Your task to perform on an android device: empty trash in google photos Image 0: 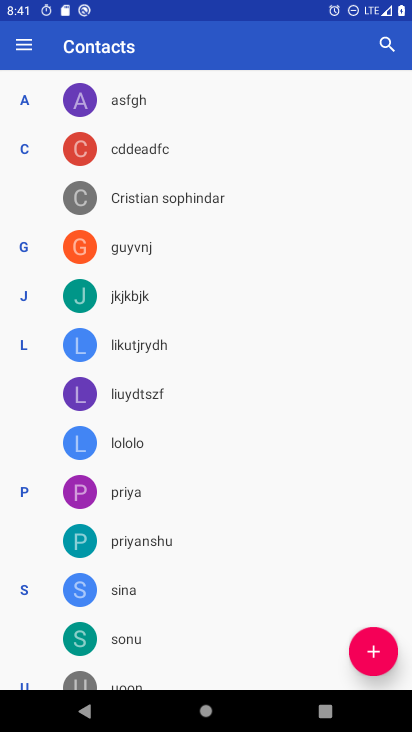
Step 0: press home button
Your task to perform on an android device: empty trash in google photos Image 1: 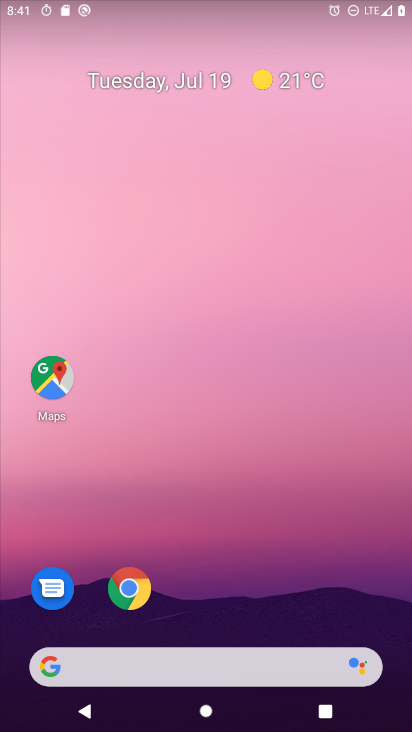
Step 1: drag from (257, 582) to (229, 188)
Your task to perform on an android device: empty trash in google photos Image 2: 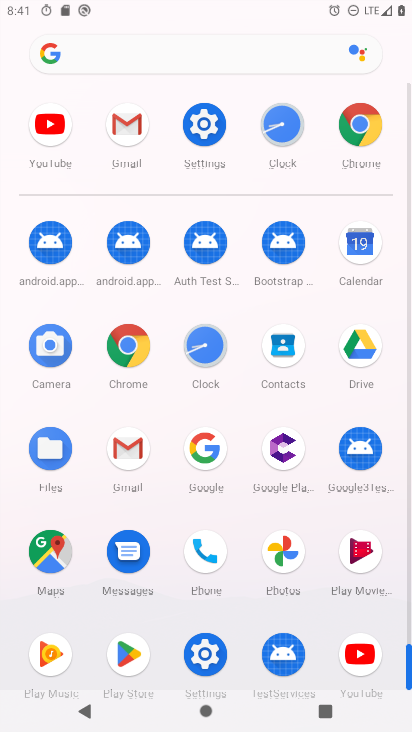
Step 2: click (281, 556)
Your task to perform on an android device: empty trash in google photos Image 3: 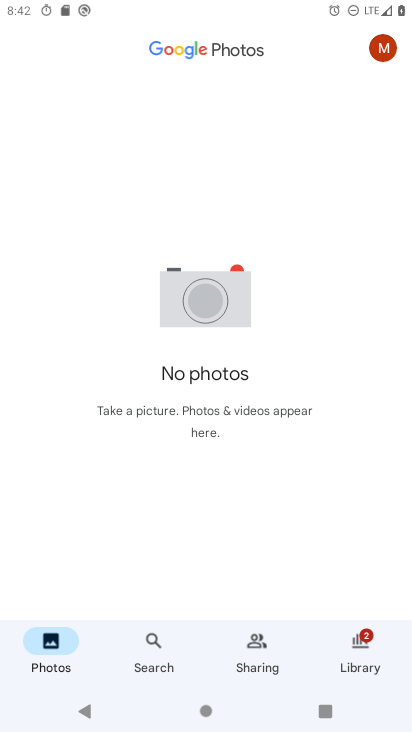
Step 3: click (377, 57)
Your task to perform on an android device: empty trash in google photos Image 4: 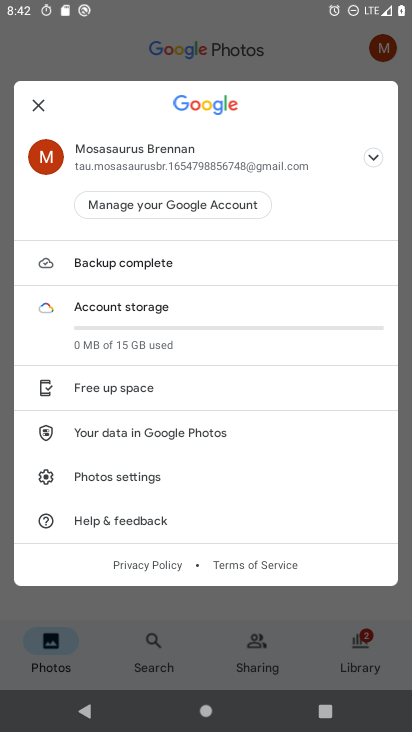
Step 4: click (139, 474)
Your task to perform on an android device: empty trash in google photos Image 5: 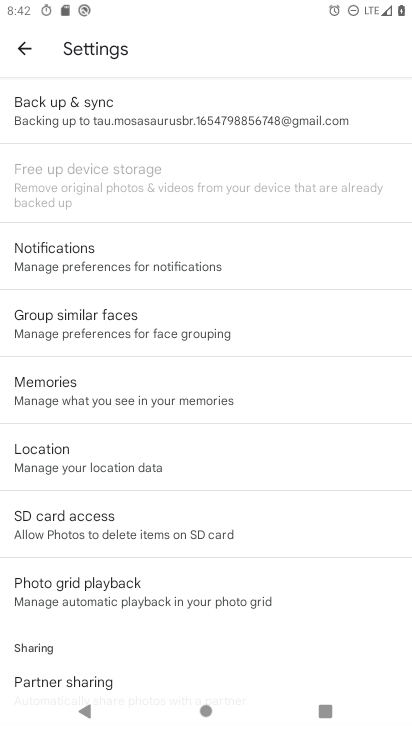
Step 5: drag from (157, 515) to (160, 175)
Your task to perform on an android device: empty trash in google photos Image 6: 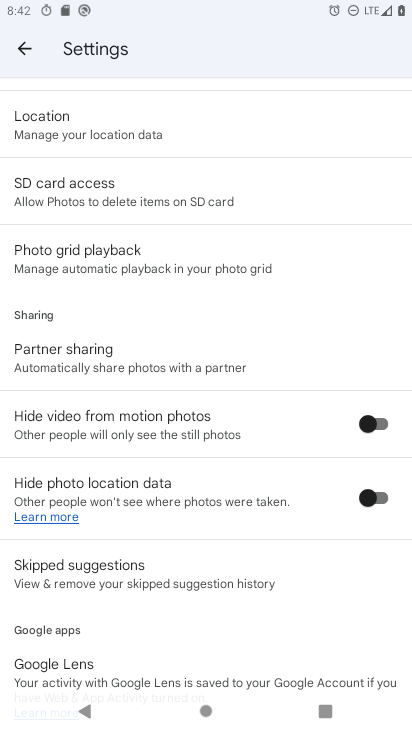
Step 6: drag from (179, 615) to (146, 279)
Your task to perform on an android device: empty trash in google photos Image 7: 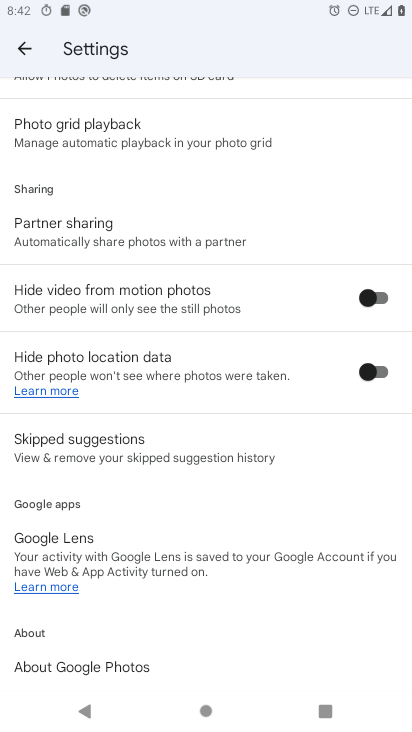
Step 7: click (82, 716)
Your task to perform on an android device: empty trash in google photos Image 8: 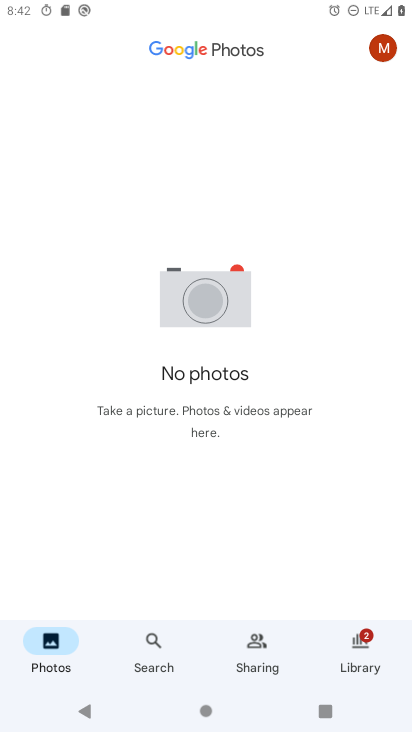
Step 8: click (377, 55)
Your task to perform on an android device: empty trash in google photos Image 9: 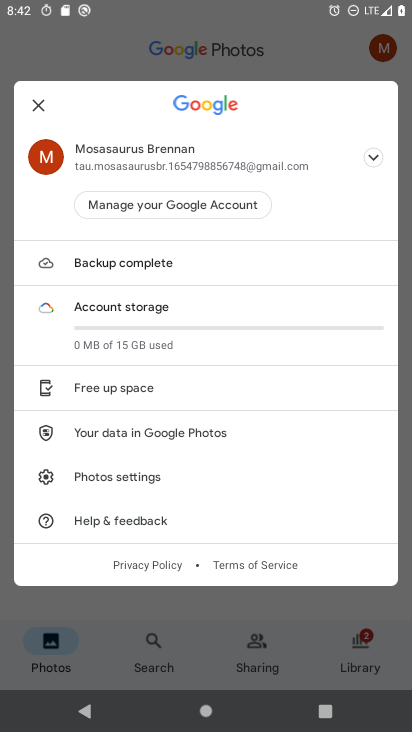
Step 9: task complete